Your task to perform on an android device: Open display settings Image 0: 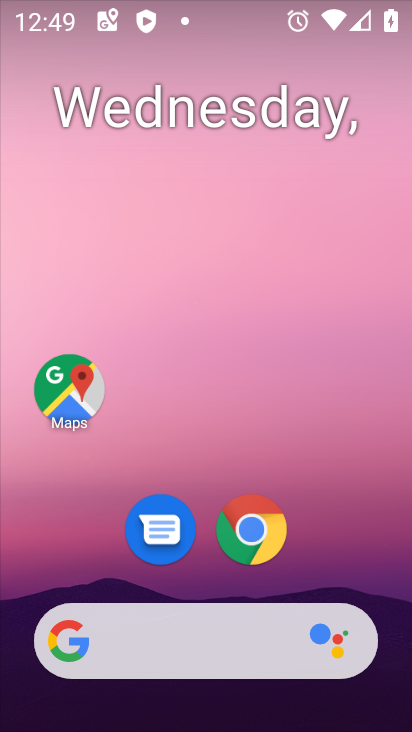
Step 0: drag from (395, 638) to (322, 111)
Your task to perform on an android device: Open display settings Image 1: 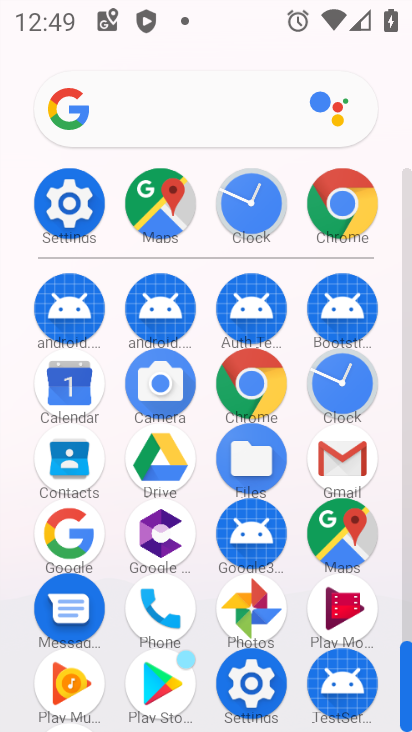
Step 1: click (248, 684)
Your task to perform on an android device: Open display settings Image 2: 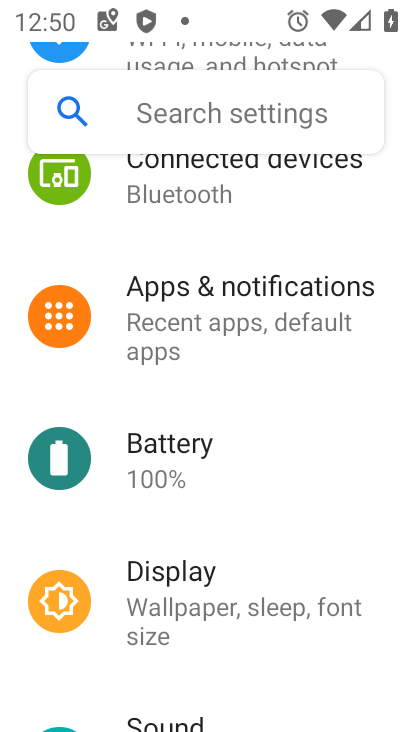
Step 2: drag from (365, 663) to (366, 287)
Your task to perform on an android device: Open display settings Image 3: 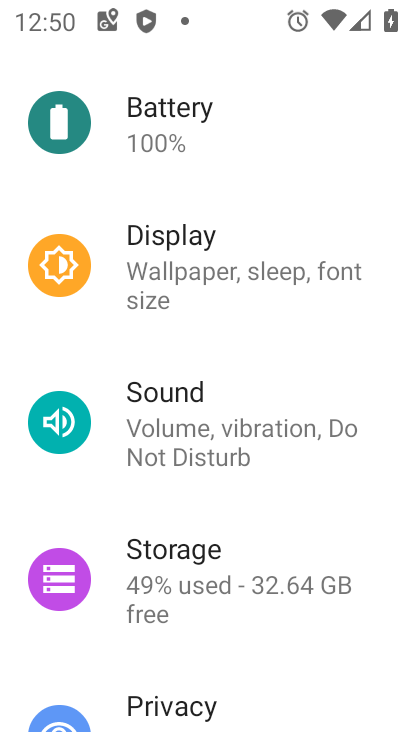
Step 3: click (159, 268)
Your task to perform on an android device: Open display settings Image 4: 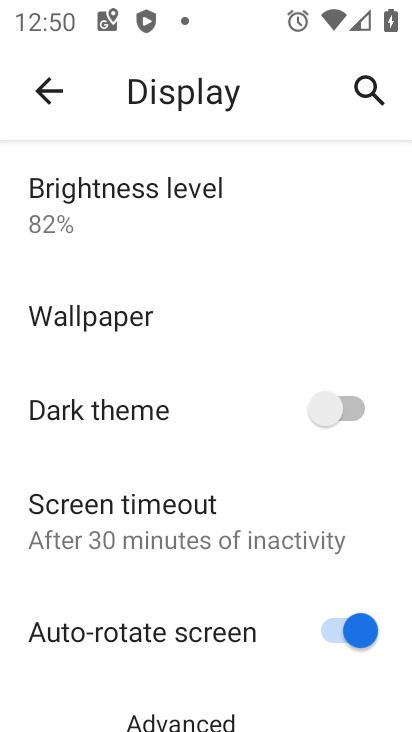
Step 4: drag from (286, 611) to (293, 287)
Your task to perform on an android device: Open display settings Image 5: 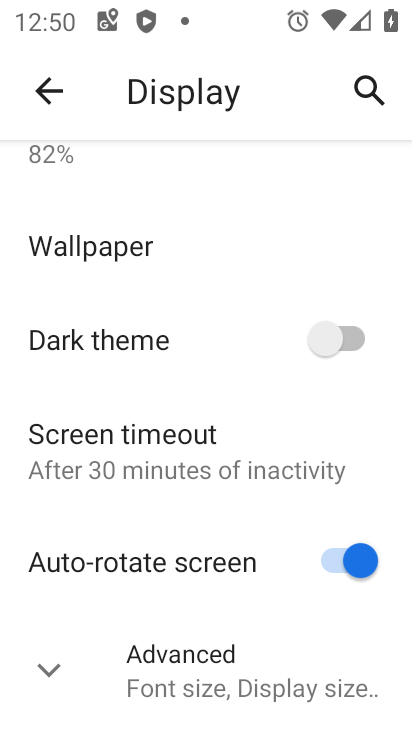
Step 5: click (42, 666)
Your task to perform on an android device: Open display settings Image 6: 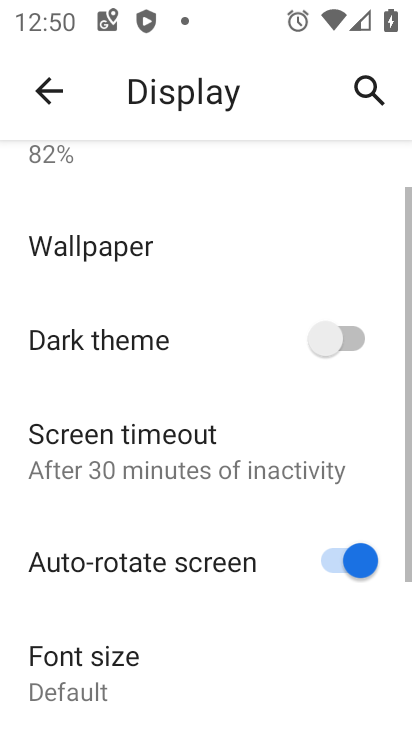
Step 6: task complete